Your task to perform on an android device: empty trash in the gmail app Image 0: 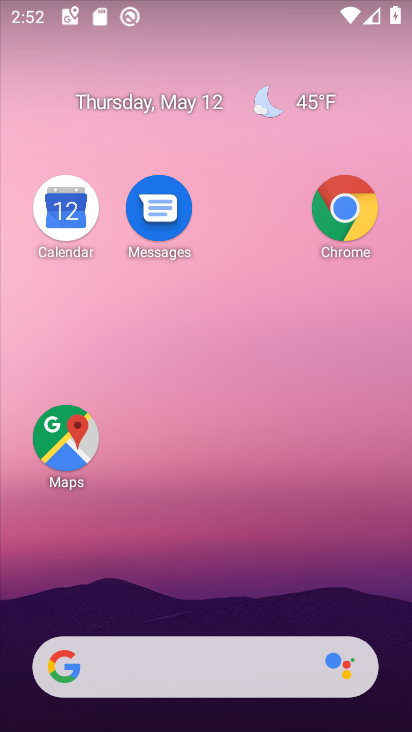
Step 0: drag from (223, 561) to (242, 10)
Your task to perform on an android device: empty trash in the gmail app Image 1: 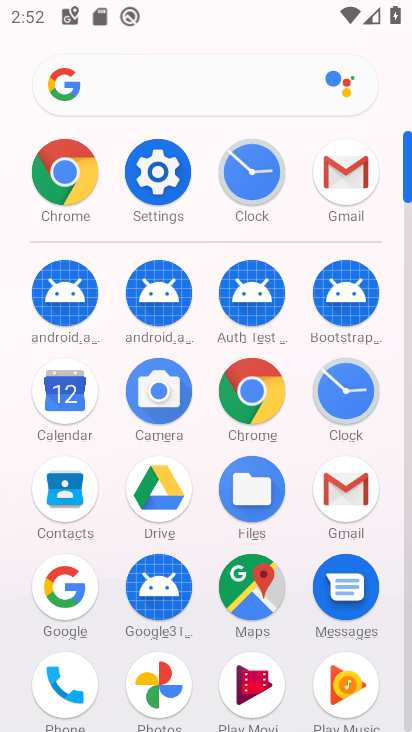
Step 1: click (343, 500)
Your task to perform on an android device: empty trash in the gmail app Image 2: 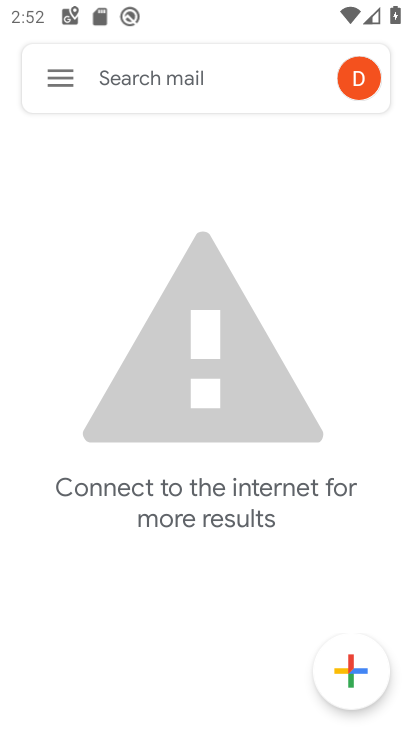
Step 2: click (65, 91)
Your task to perform on an android device: empty trash in the gmail app Image 3: 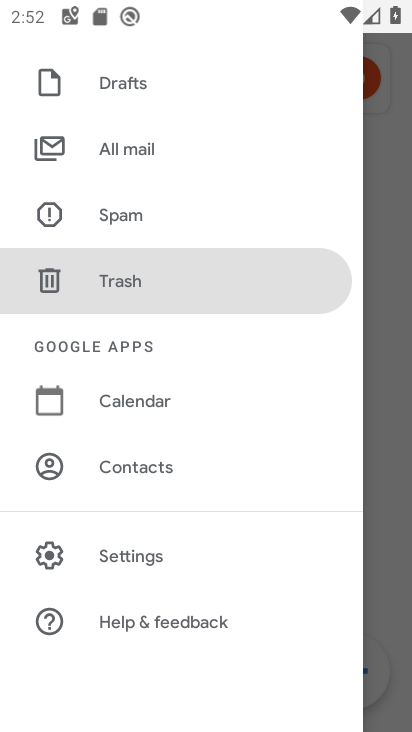
Step 3: click (77, 286)
Your task to perform on an android device: empty trash in the gmail app Image 4: 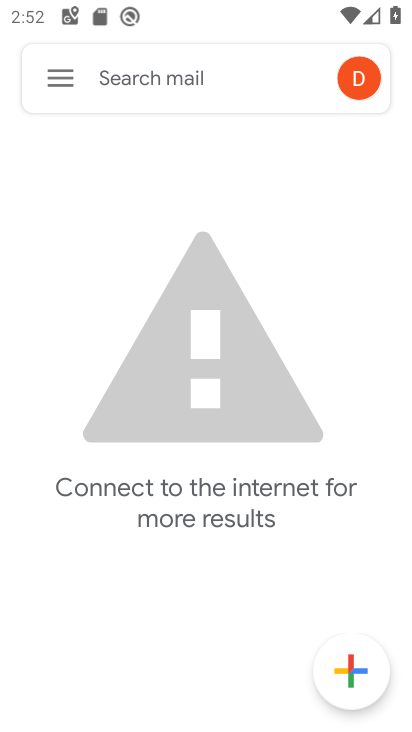
Step 4: task complete